Your task to perform on an android device: move an email to a new category in the gmail app Image 0: 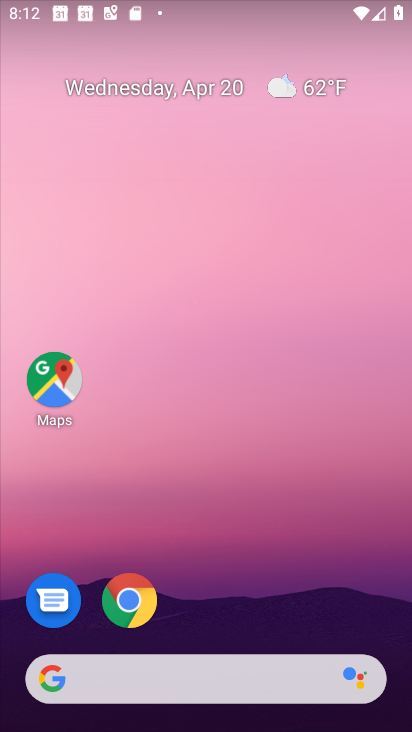
Step 0: press home button
Your task to perform on an android device: move an email to a new category in the gmail app Image 1: 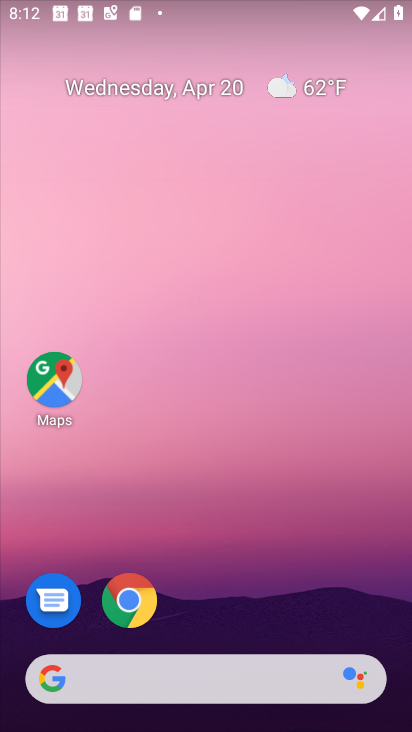
Step 1: drag from (252, 534) to (230, 184)
Your task to perform on an android device: move an email to a new category in the gmail app Image 2: 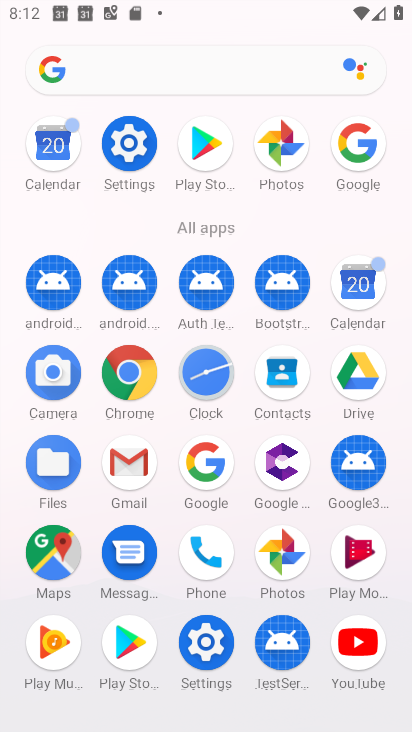
Step 2: click (129, 463)
Your task to perform on an android device: move an email to a new category in the gmail app Image 3: 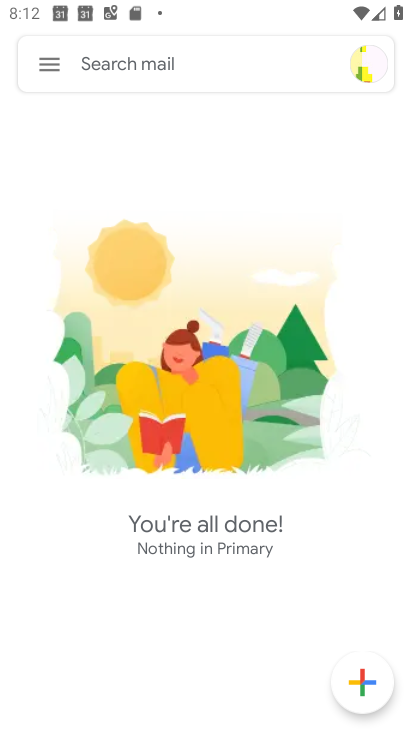
Step 3: click (41, 50)
Your task to perform on an android device: move an email to a new category in the gmail app Image 4: 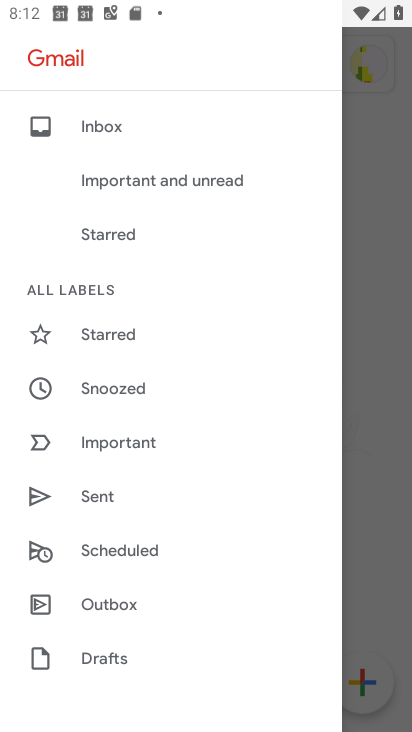
Step 4: click (104, 117)
Your task to perform on an android device: move an email to a new category in the gmail app Image 5: 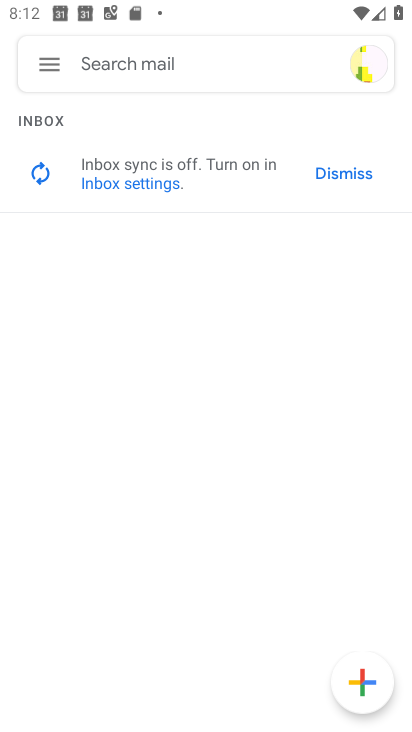
Step 5: task complete